Your task to perform on an android device: Go to CNN.com Image 0: 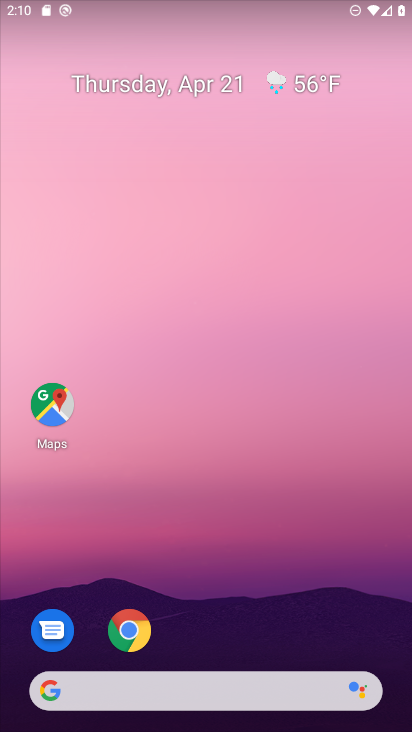
Step 0: click (136, 628)
Your task to perform on an android device: Go to CNN.com Image 1: 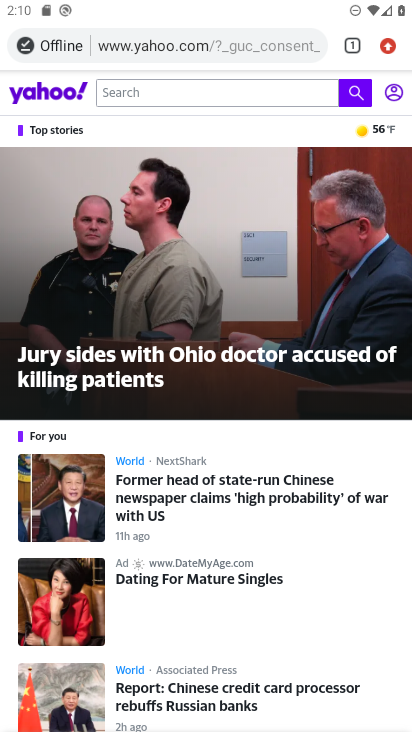
Step 1: click (216, 51)
Your task to perform on an android device: Go to CNN.com Image 2: 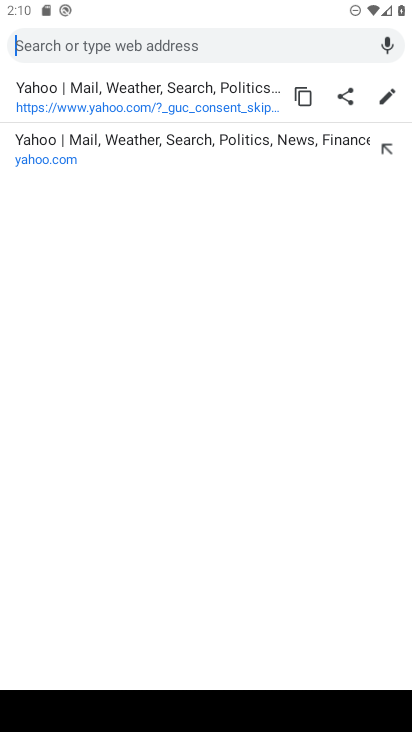
Step 2: type "cnn.com"
Your task to perform on an android device: Go to CNN.com Image 3: 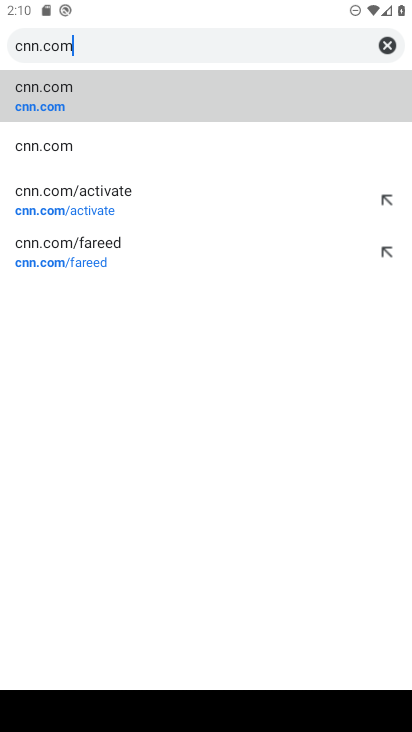
Step 3: click (164, 120)
Your task to perform on an android device: Go to CNN.com Image 4: 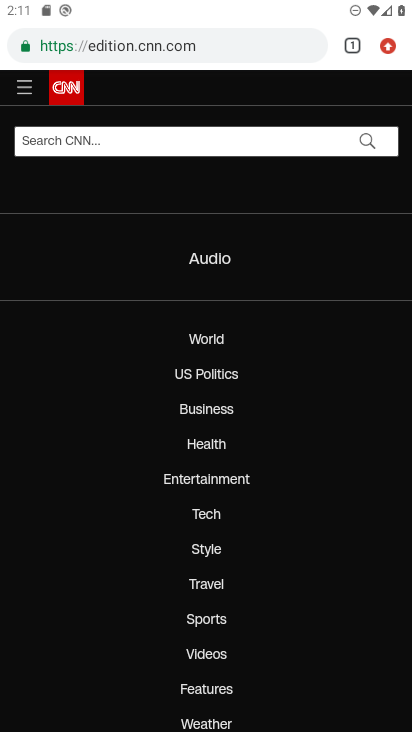
Step 4: task complete